Your task to perform on an android device: empty trash in the gmail app Image 0: 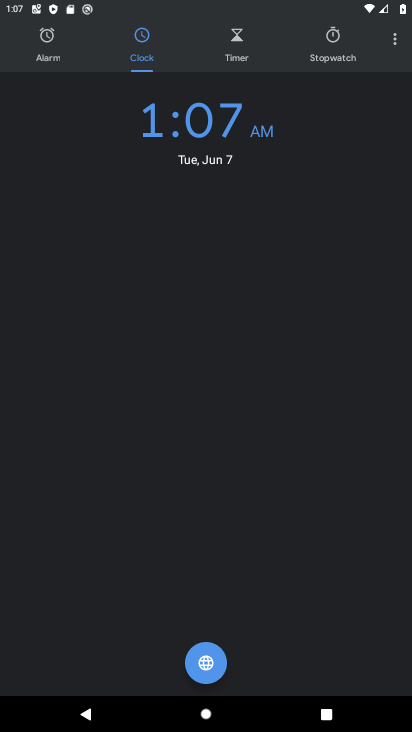
Step 0: press home button
Your task to perform on an android device: empty trash in the gmail app Image 1: 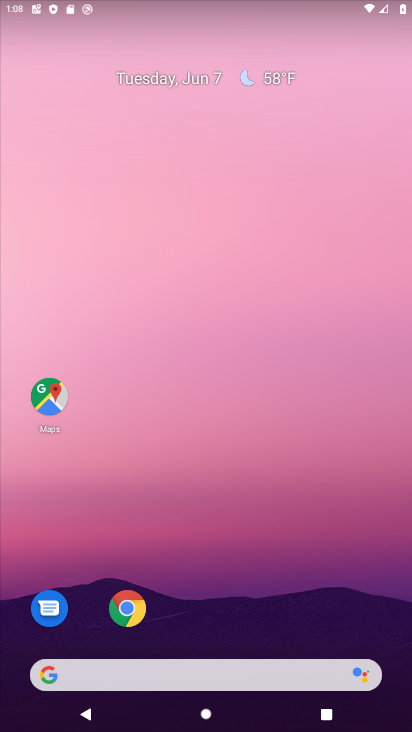
Step 1: drag from (306, 600) to (268, 120)
Your task to perform on an android device: empty trash in the gmail app Image 2: 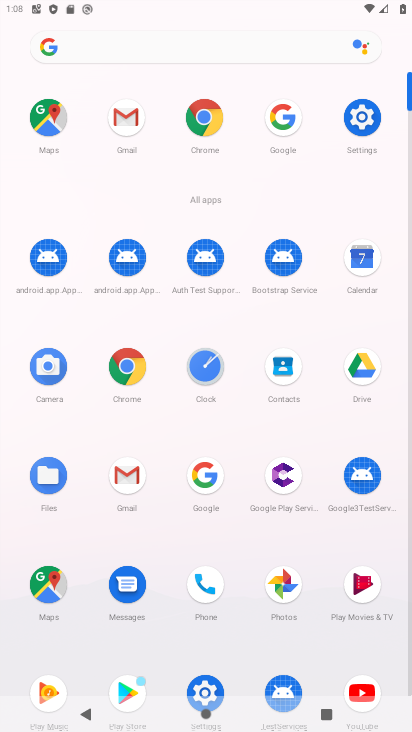
Step 2: click (111, 121)
Your task to perform on an android device: empty trash in the gmail app Image 3: 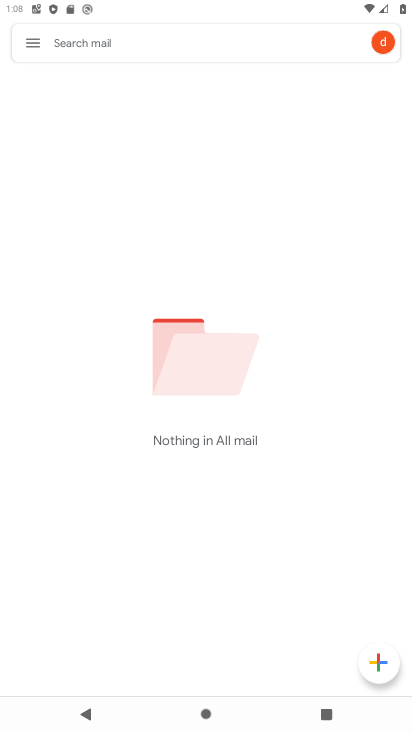
Step 3: click (35, 27)
Your task to perform on an android device: empty trash in the gmail app Image 4: 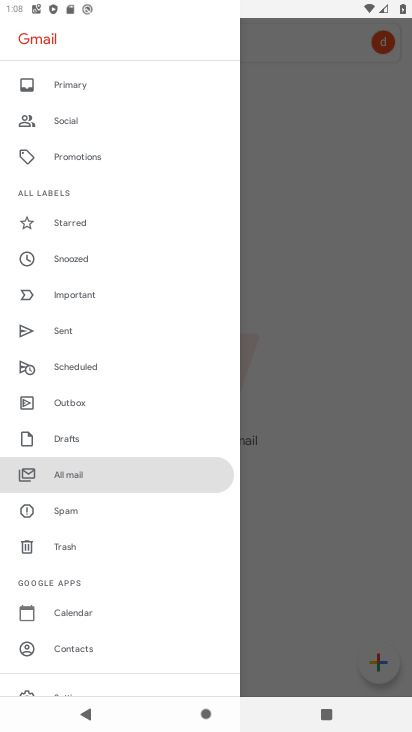
Step 4: click (90, 548)
Your task to perform on an android device: empty trash in the gmail app Image 5: 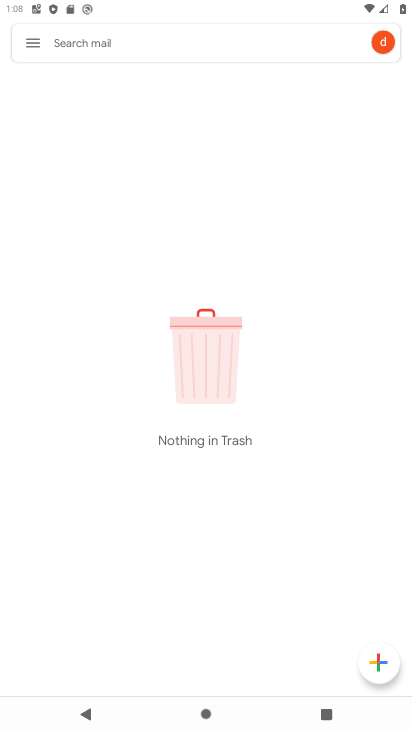
Step 5: task complete